Your task to perform on an android device: Add "macbook pro 15 inch" to the cart on costco.com Image 0: 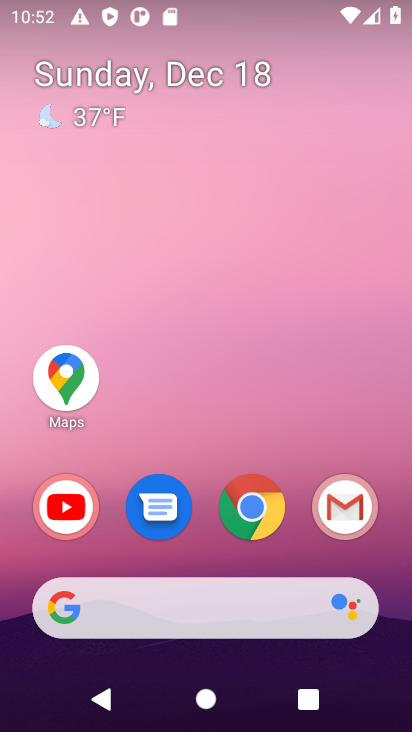
Step 0: click (240, 511)
Your task to perform on an android device: Add "macbook pro 15 inch" to the cart on costco.com Image 1: 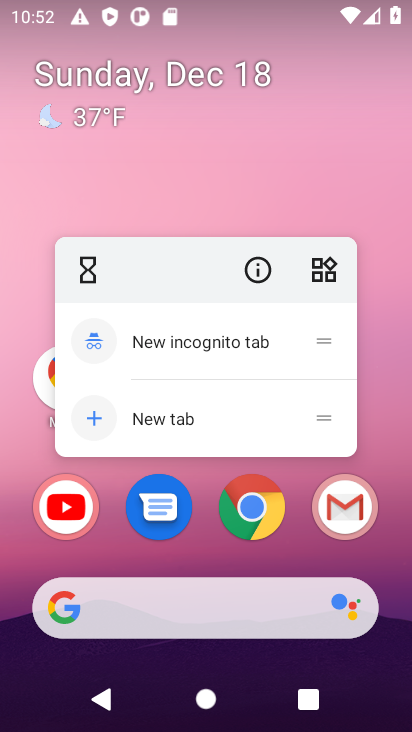
Step 1: click (246, 515)
Your task to perform on an android device: Add "macbook pro 15 inch" to the cart on costco.com Image 2: 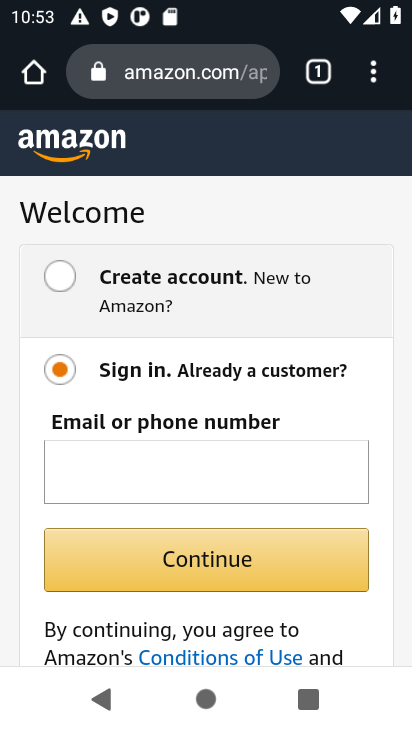
Step 2: click (165, 76)
Your task to perform on an android device: Add "macbook pro 15 inch" to the cart on costco.com Image 3: 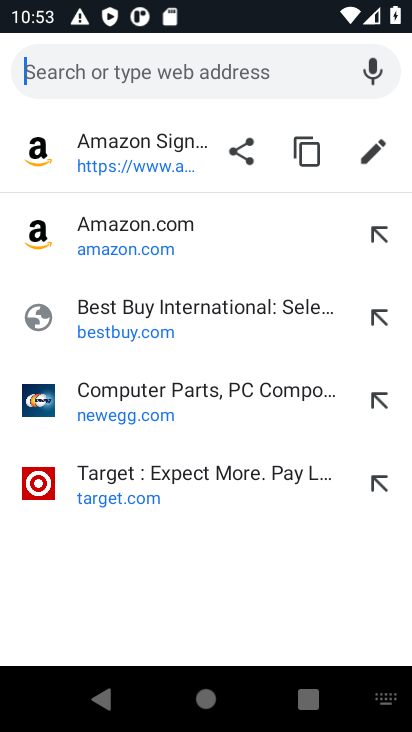
Step 3: type "costco.com"
Your task to perform on an android device: Add "macbook pro 15 inch" to the cart on costco.com Image 4: 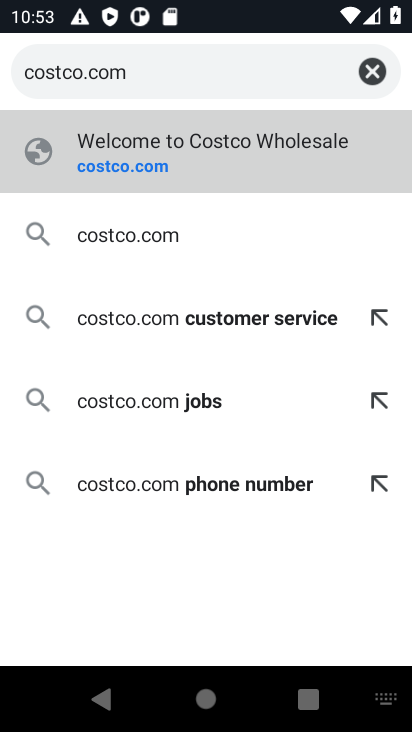
Step 4: click (131, 173)
Your task to perform on an android device: Add "macbook pro 15 inch" to the cart on costco.com Image 5: 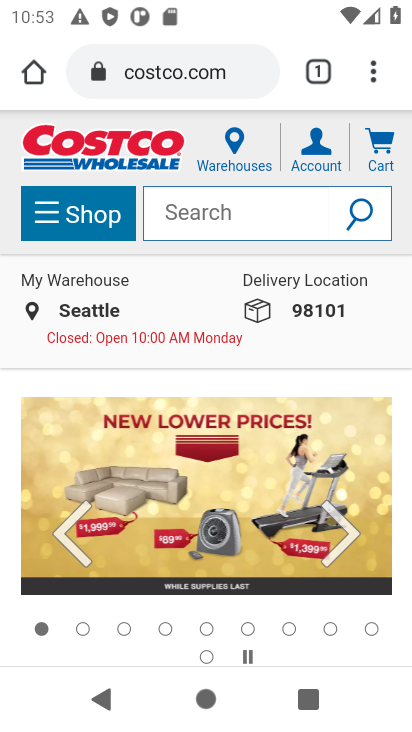
Step 5: click (162, 211)
Your task to perform on an android device: Add "macbook pro 15 inch" to the cart on costco.com Image 6: 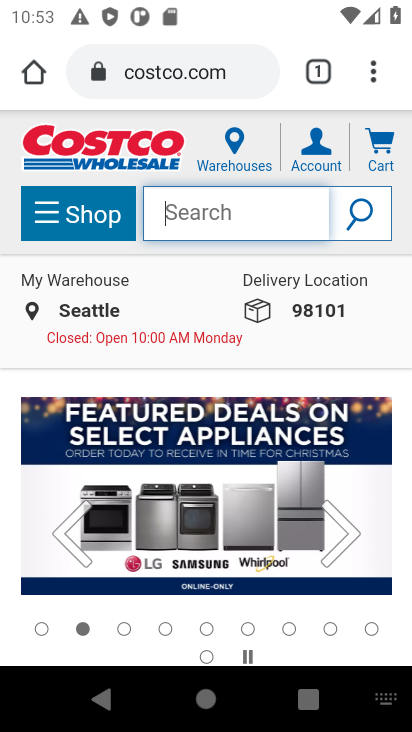
Step 6: type "macbook pro 15 inch"
Your task to perform on an android device: Add "macbook pro 15 inch" to the cart on costco.com Image 7: 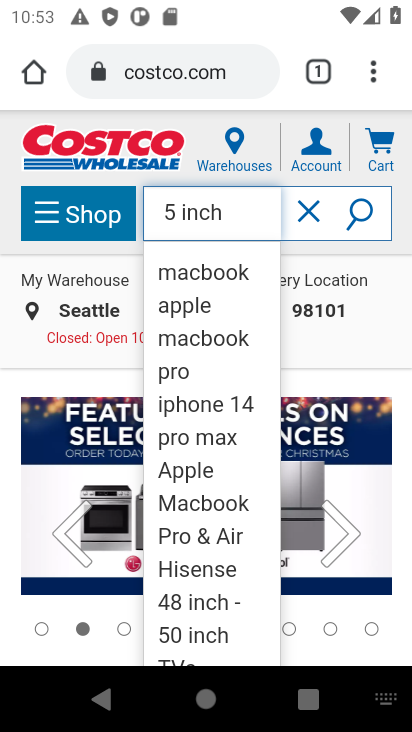
Step 7: click (342, 217)
Your task to perform on an android device: Add "macbook pro 15 inch" to the cart on costco.com Image 8: 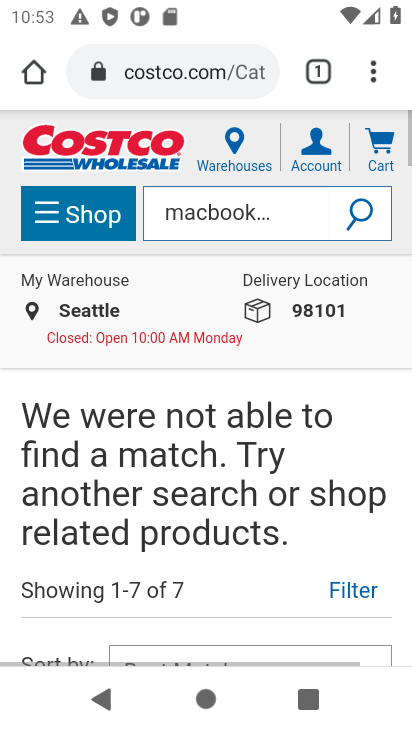
Step 8: task complete